Your task to perform on an android device: change the clock display to show seconds Image 0: 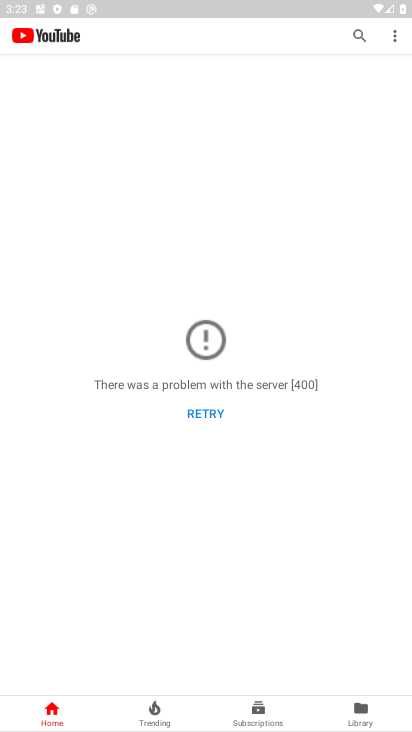
Step 0: press home button
Your task to perform on an android device: change the clock display to show seconds Image 1: 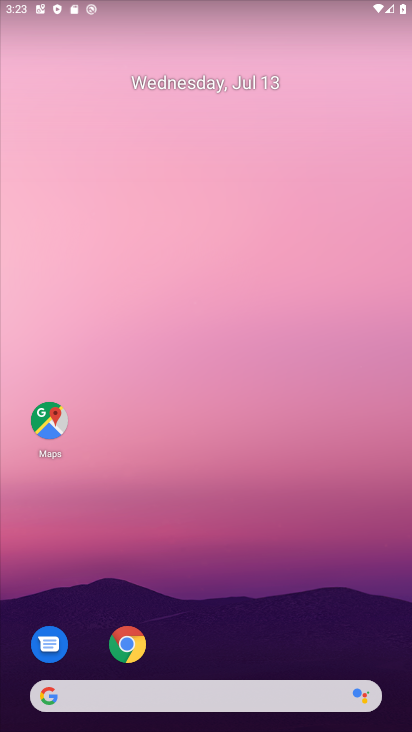
Step 1: drag from (222, 661) to (281, 194)
Your task to perform on an android device: change the clock display to show seconds Image 2: 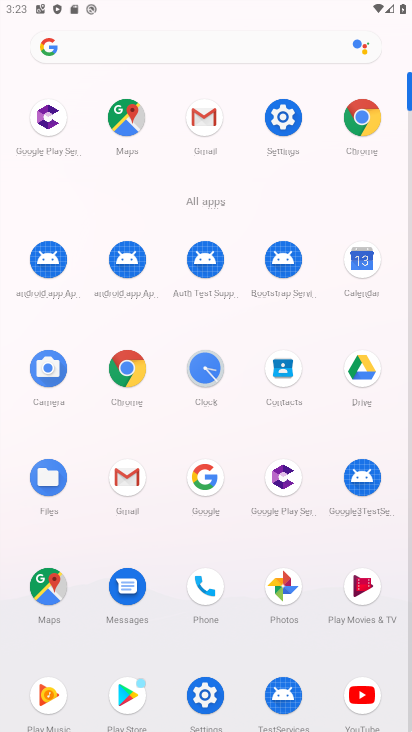
Step 2: click (214, 365)
Your task to perform on an android device: change the clock display to show seconds Image 3: 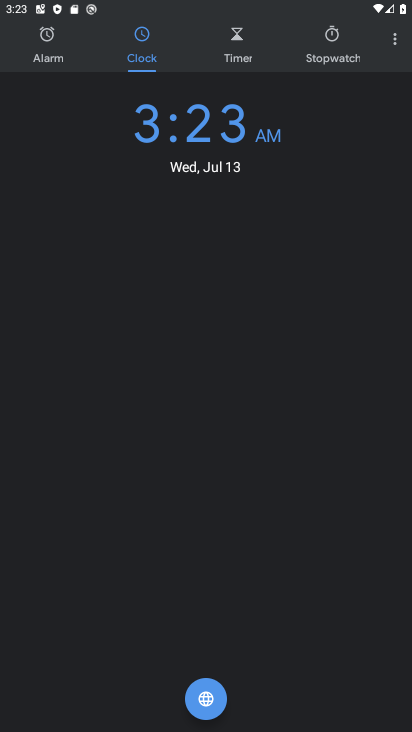
Step 3: click (394, 43)
Your task to perform on an android device: change the clock display to show seconds Image 4: 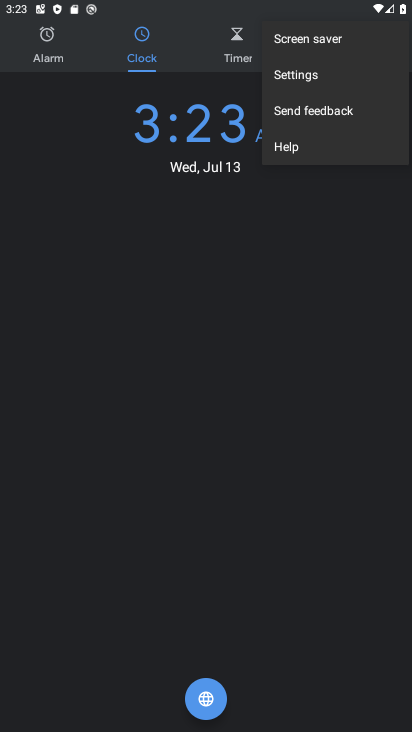
Step 4: click (361, 73)
Your task to perform on an android device: change the clock display to show seconds Image 5: 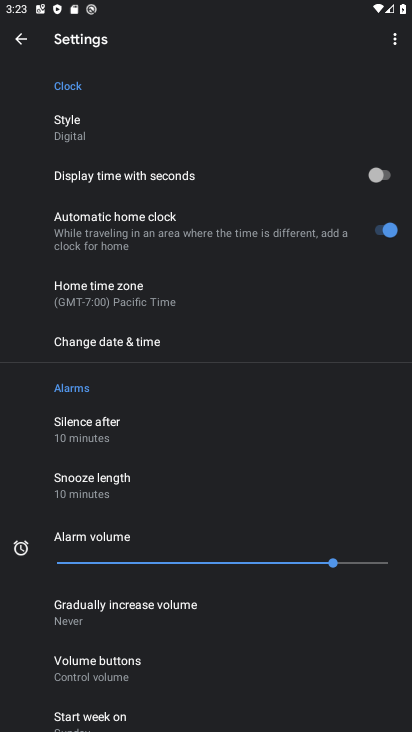
Step 5: click (378, 174)
Your task to perform on an android device: change the clock display to show seconds Image 6: 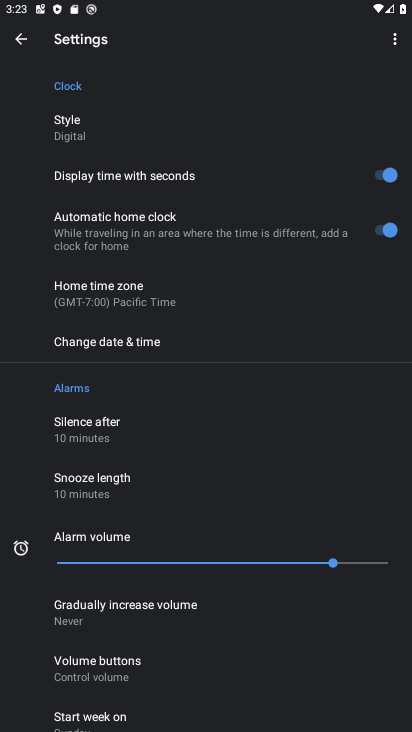
Step 6: task complete